Your task to perform on an android device: set an alarm Image 0: 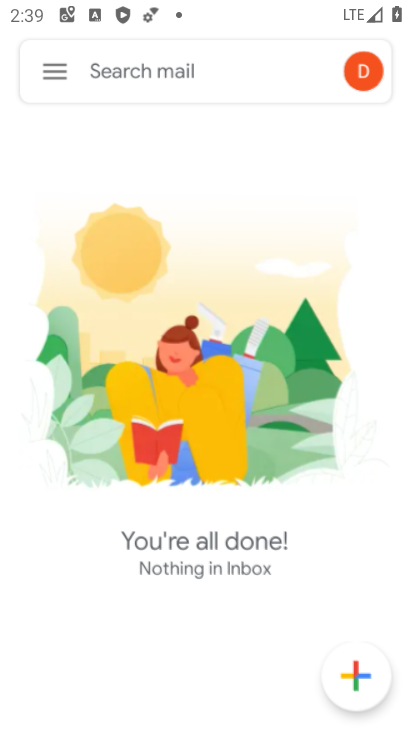
Step 0: drag from (203, 535) to (203, 180)
Your task to perform on an android device: set an alarm Image 1: 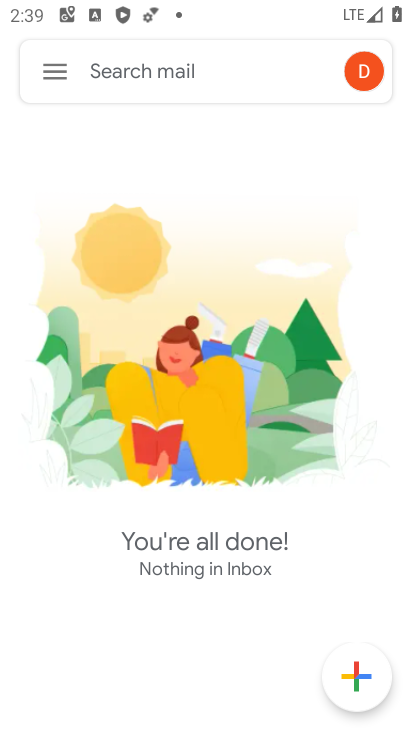
Step 1: press home button
Your task to perform on an android device: set an alarm Image 2: 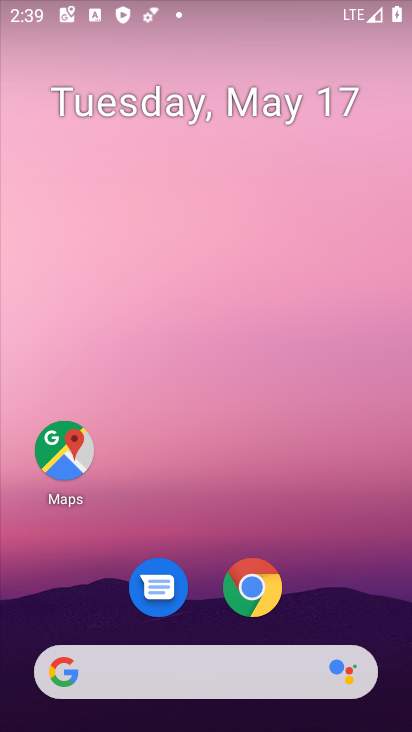
Step 2: drag from (214, 611) to (219, 149)
Your task to perform on an android device: set an alarm Image 3: 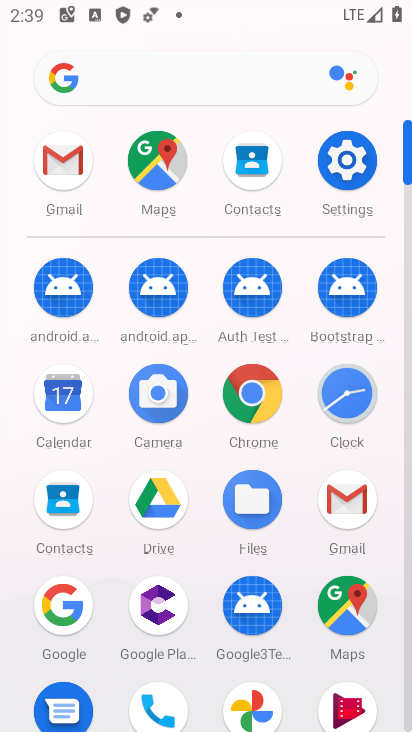
Step 3: click (345, 393)
Your task to perform on an android device: set an alarm Image 4: 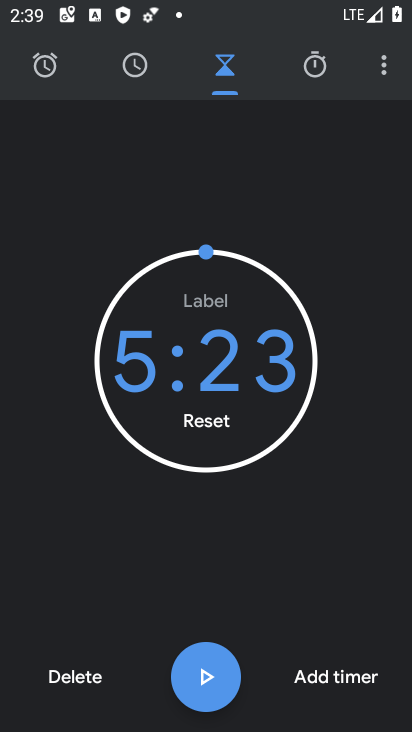
Step 4: click (62, 61)
Your task to perform on an android device: set an alarm Image 5: 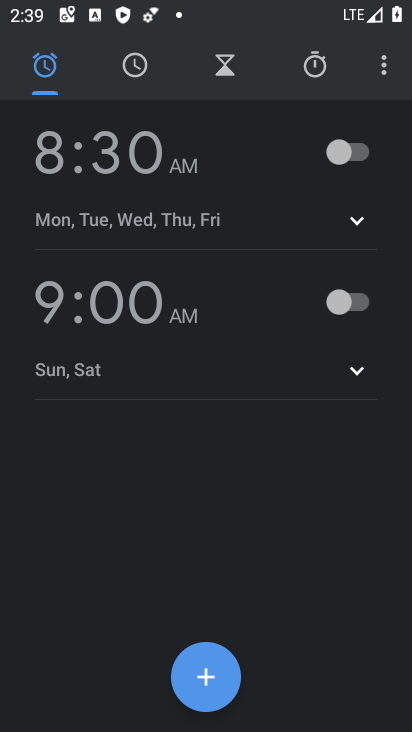
Step 5: click (340, 164)
Your task to perform on an android device: set an alarm Image 6: 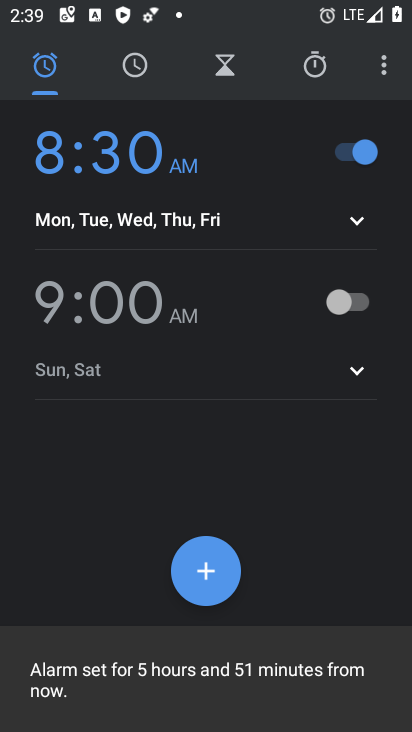
Step 6: task complete